Your task to perform on an android device: turn off smart reply in the gmail app Image 0: 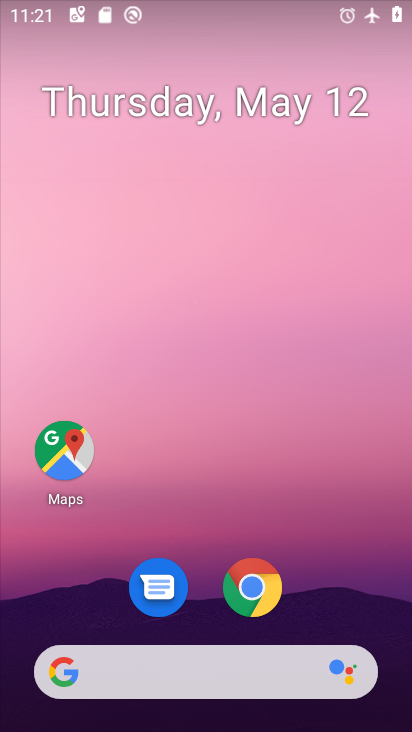
Step 0: drag from (402, 634) to (292, 21)
Your task to perform on an android device: turn off smart reply in the gmail app Image 1: 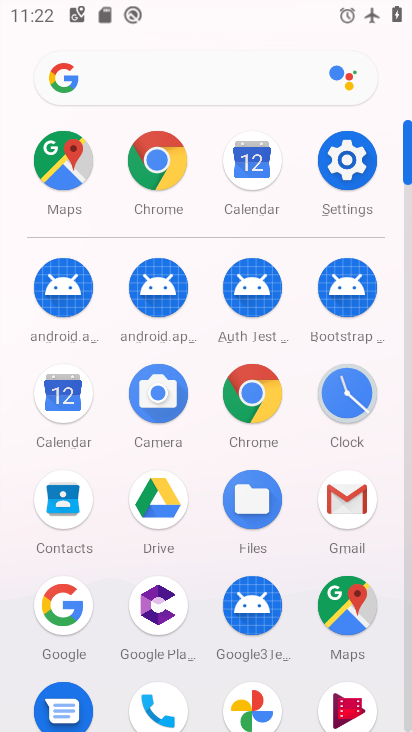
Step 1: click (357, 492)
Your task to perform on an android device: turn off smart reply in the gmail app Image 2: 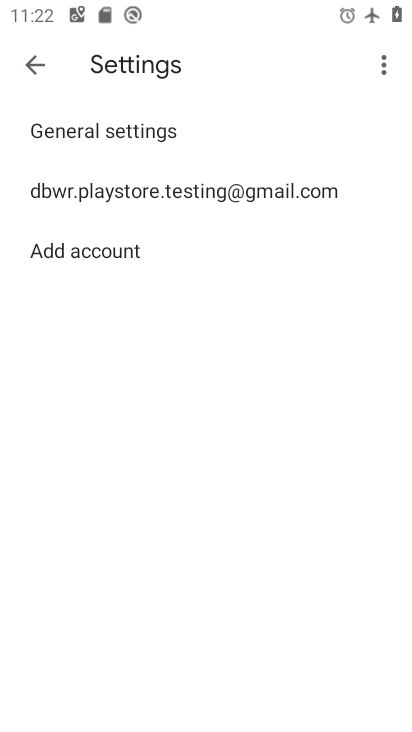
Step 2: click (219, 180)
Your task to perform on an android device: turn off smart reply in the gmail app Image 3: 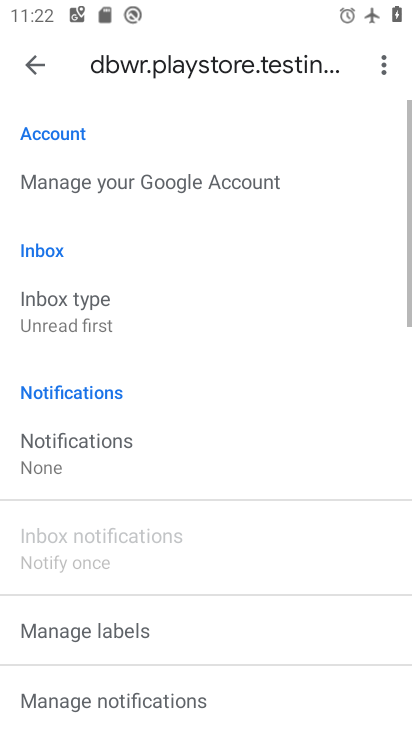
Step 3: drag from (185, 731) to (238, 113)
Your task to perform on an android device: turn off smart reply in the gmail app Image 4: 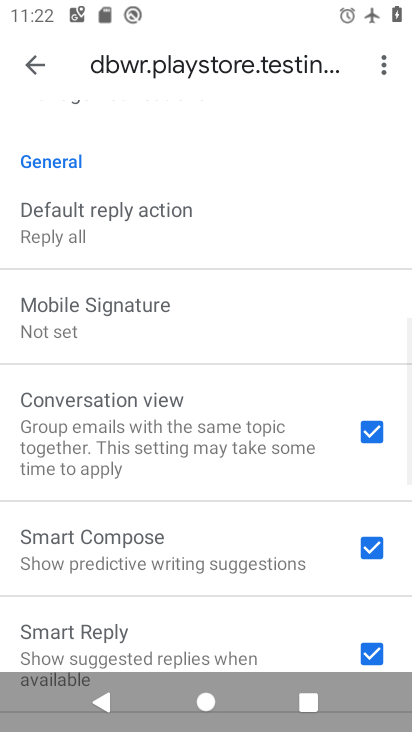
Step 4: drag from (184, 607) to (239, 332)
Your task to perform on an android device: turn off smart reply in the gmail app Image 5: 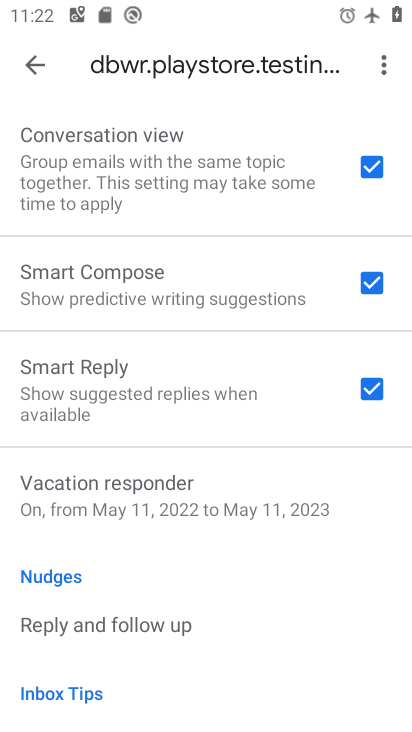
Step 5: click (202, 370)
Your task to perform on an android device: turn off smart reply in the gmail app Image 6: 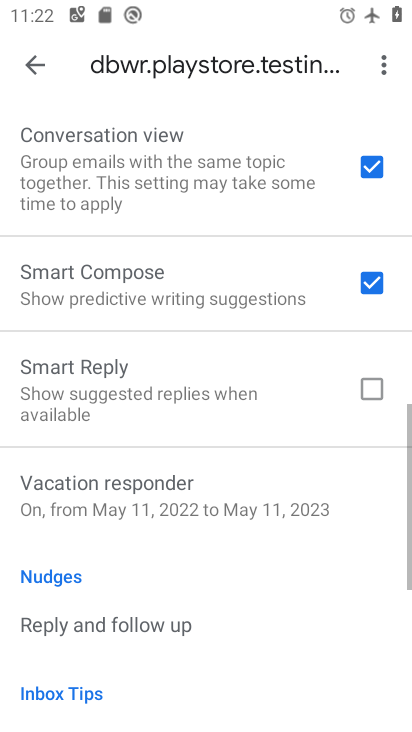
Step 6: task complete